Your task to perform on an android device: open app "The Home Depot" (install if not already installed), go to login, and select forgot password Image 0: 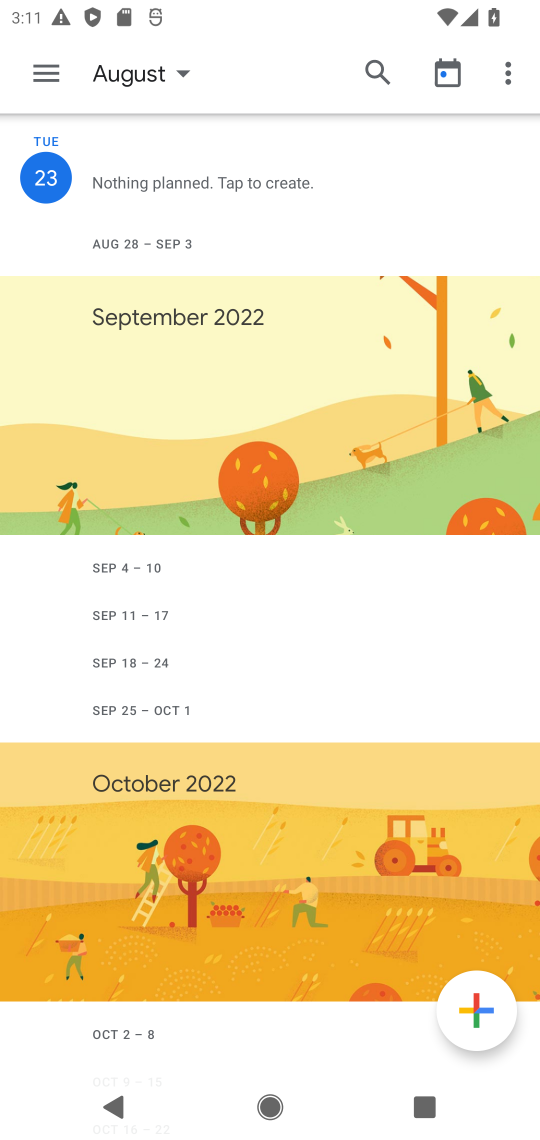
Step 0: press home button
Your task to perform on an android device: open app "The Home Depot" (install if not already installed), go to login, and select forgot password Image 1: 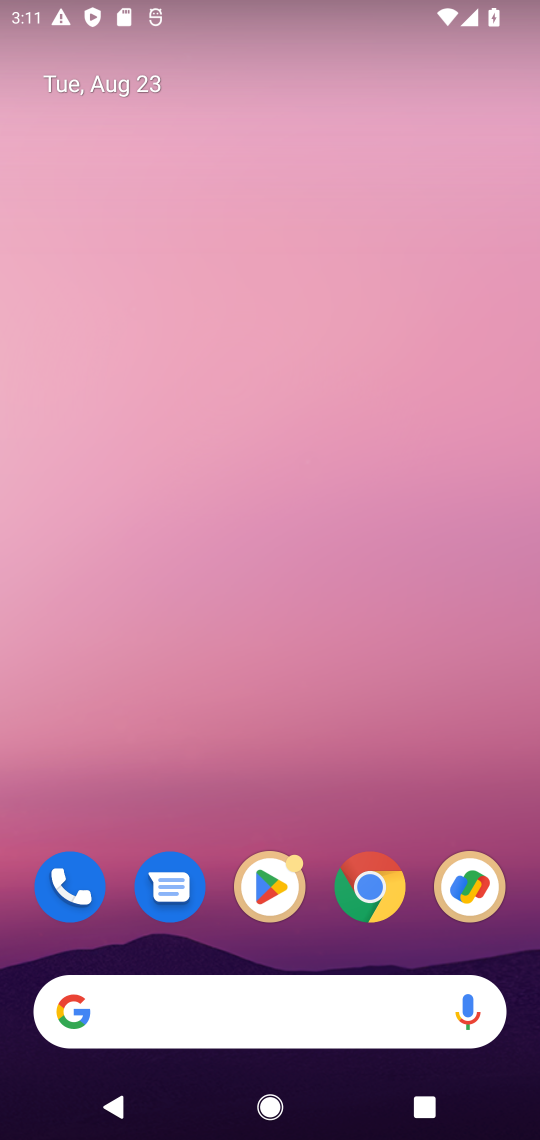
Step 1: click (275, 880)
Your task to perform on an android device: open app "The Home Depot" (install if not already installed), go to login, and select forgot password Image 2: 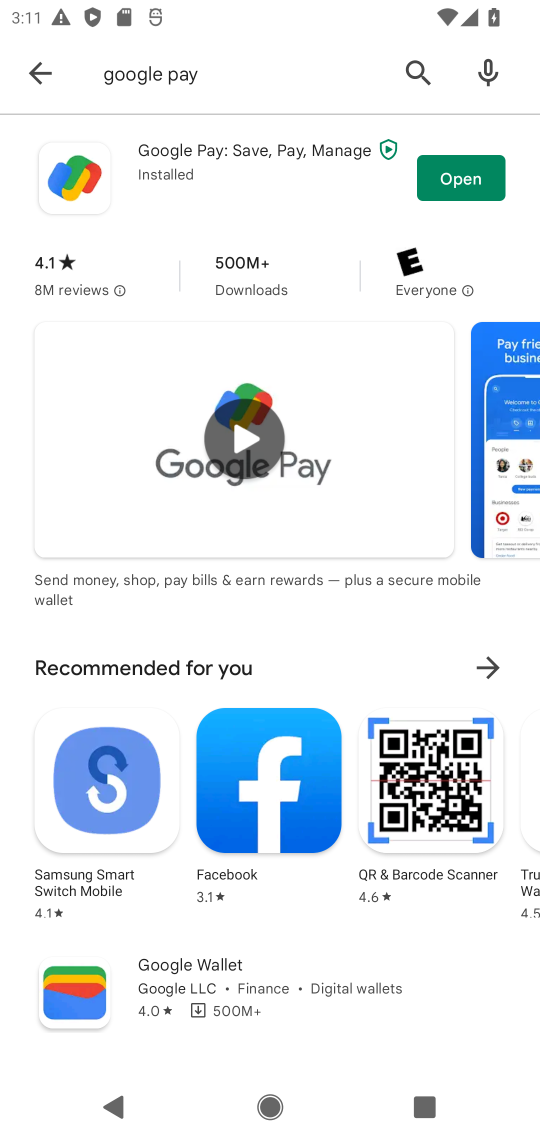
Step 2: click (50, 71)
Your task to perform on an android device: open app "The Home Depot" (install if not already installed), go to login, and select forgot password Image 3: 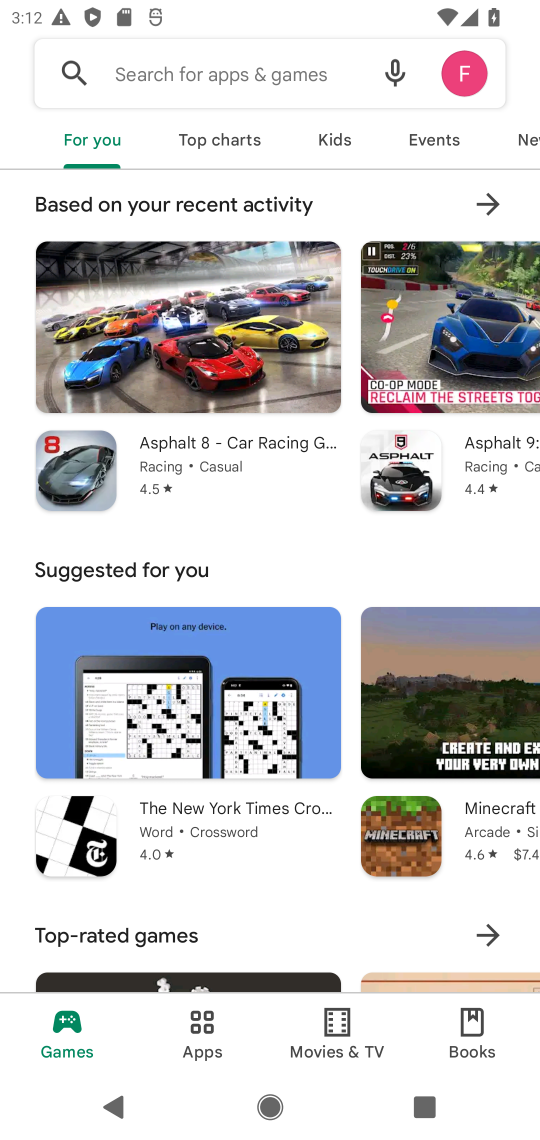
Step 3: click (194, 56)
Your task to perform on an android device: open app "The Home Depot" (install if not already installed), go to login, and select forgot password Image 4: 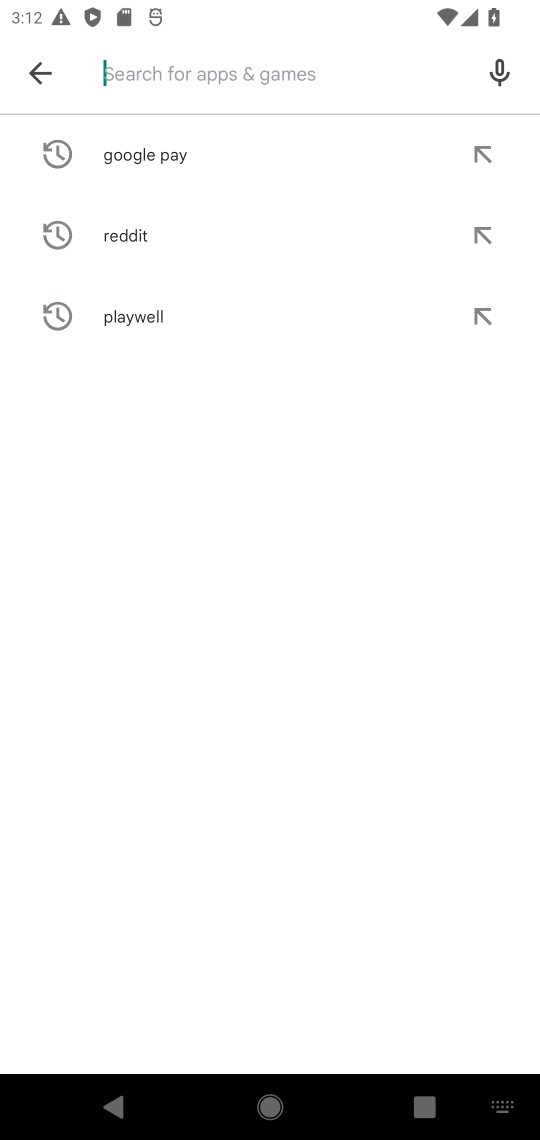
Step 4: type "The Home Depot"
Your task to perform on an android device: open app "The Home Depot" (install if not already installed), go to login, and select forgot password Image 5: 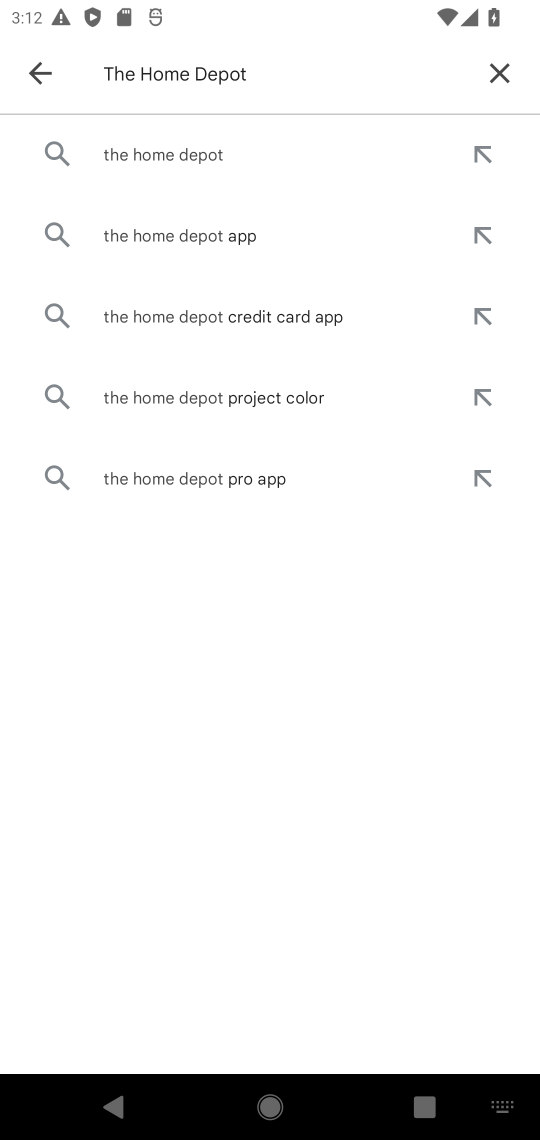
Step 5: click (176, 149)
Your task to perform on an android device: open app "The Home Depot" (install if not already installed), go to login, and select forgot password Image 6: 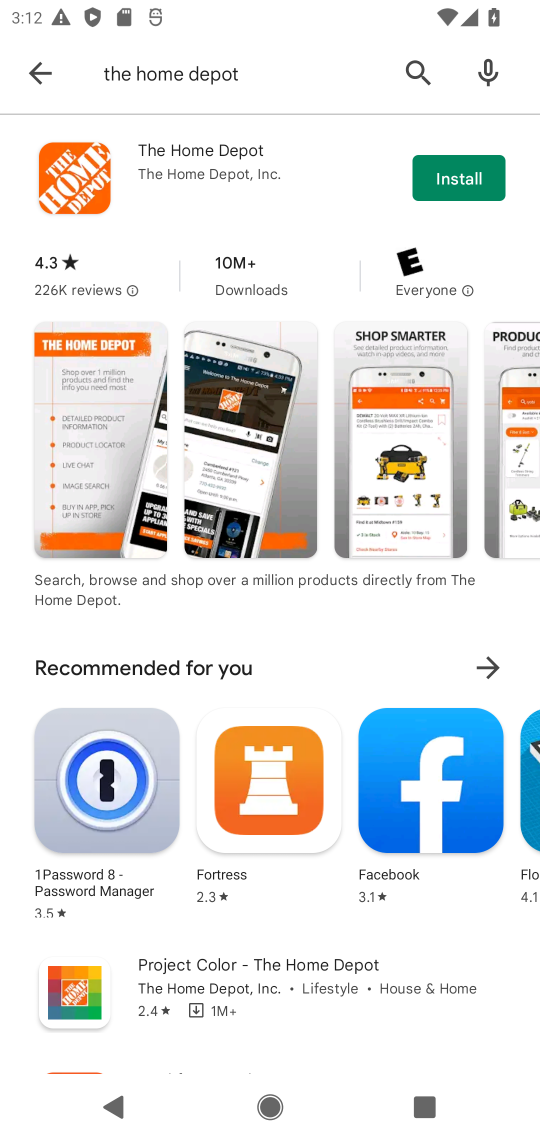
Step 6: click (445, 179)
Your task to perform on an android device: open app "The Home Depot" (install if not already installed), go to login, and select forgot password Image 7: 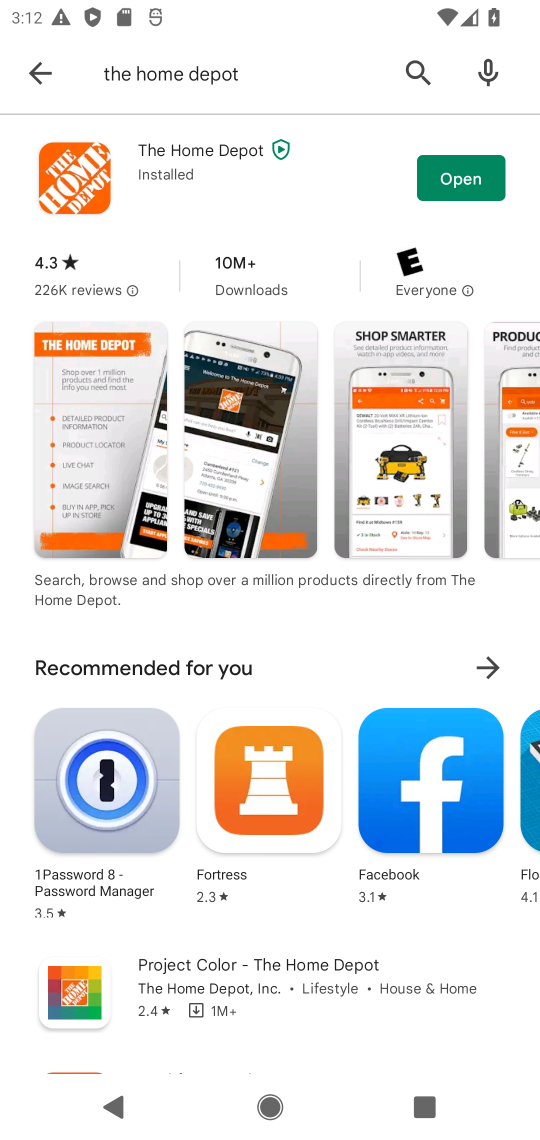
Step 7: click (445, 179)
Your task to perform on an android device: open app "The Home Depot" (install if not already installed), go to login, and select forgot password Image 8: 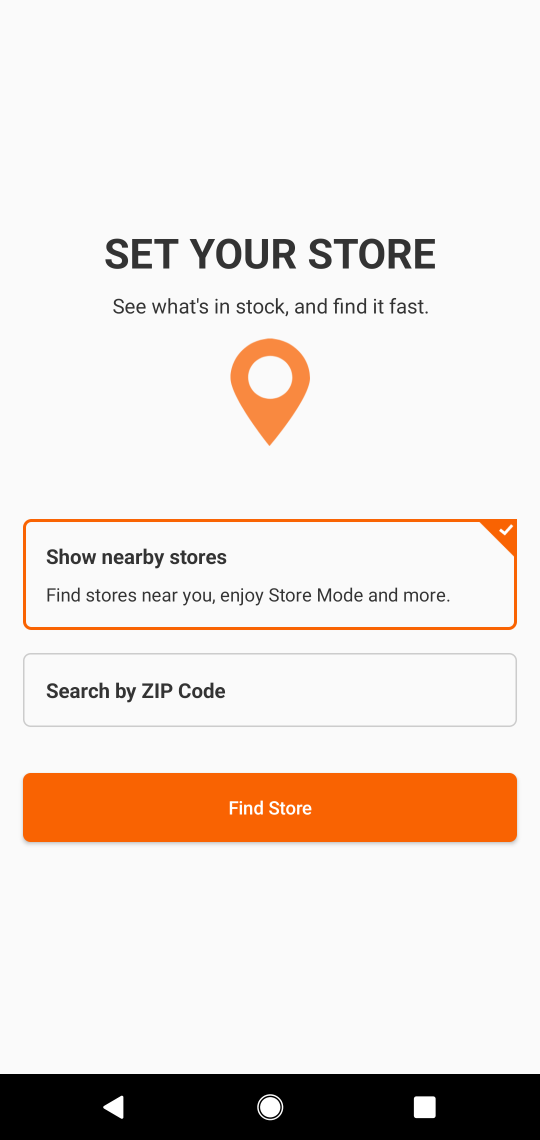
Step 8: task complete